Your task to perform on an android device: What's on my calendar tomorrow? Image 0: 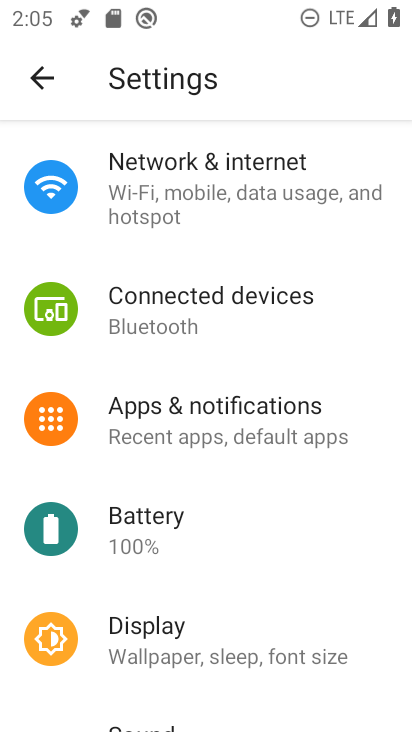
Step 0: press home button
Your task to perform on an android device: What's on my calendar tomorrow? Image 1: 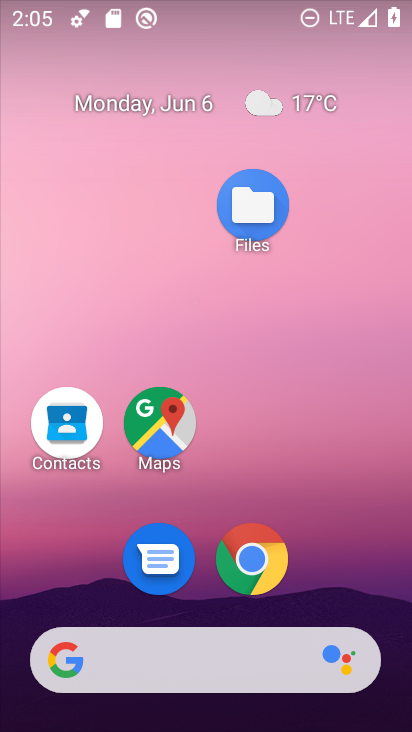
Step 1: drag from (223, 610) to (245, 77)
Your task to perform on an android device: What's on my calendar tomorrow? Image 2: 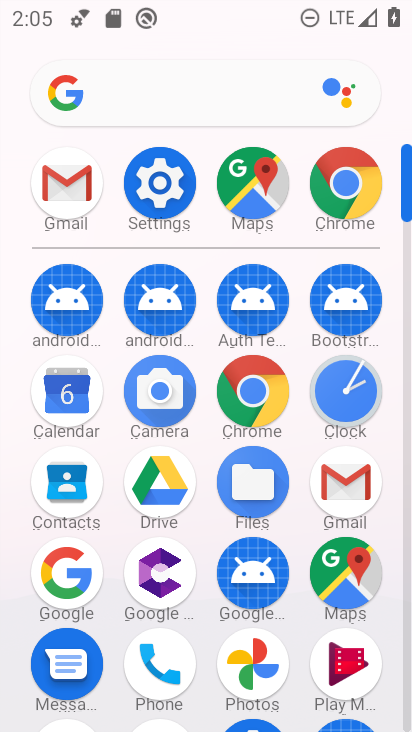
Step 2: click (65, 398)
Your task to perform on an android device: What's on my calendar tomorrow? Image 3: 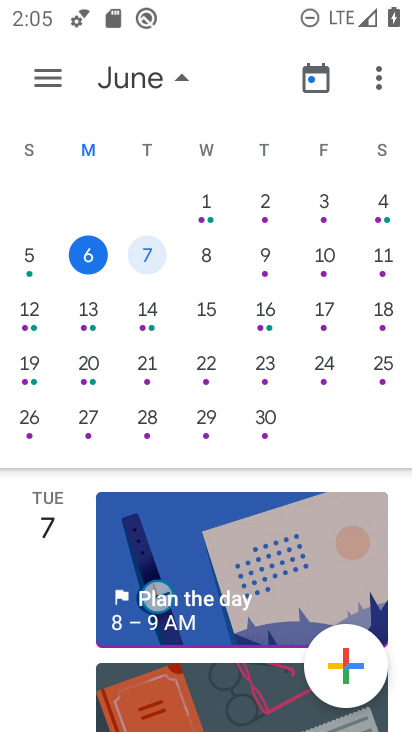
Step 3: click (151, 262)
Your task to perform on an android device: What's on my calendar tomorrow? Image 4: 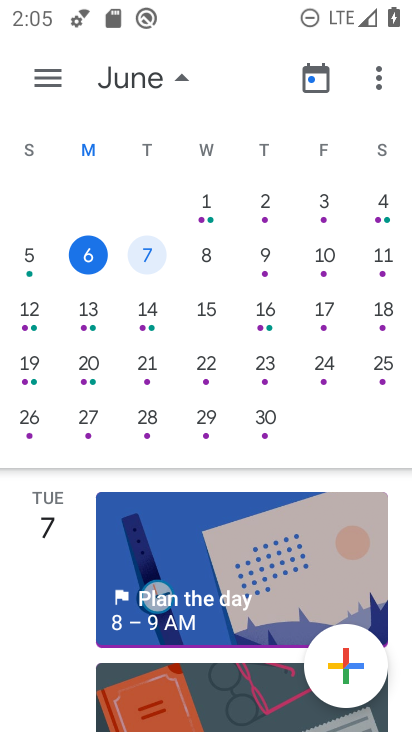
Step 4: task complete